Your task to perform on an android device: Do I have any events today? Image 0: 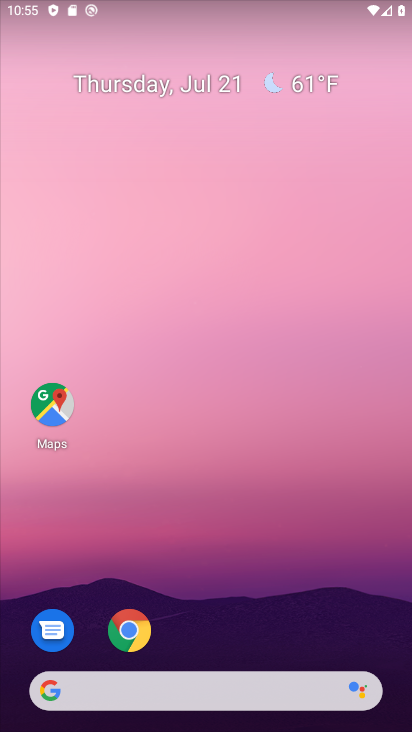
Step 0: drag from (191, 689) to (196, 193)
Your task to perform on an android device: Do I have any events today? Image 1: 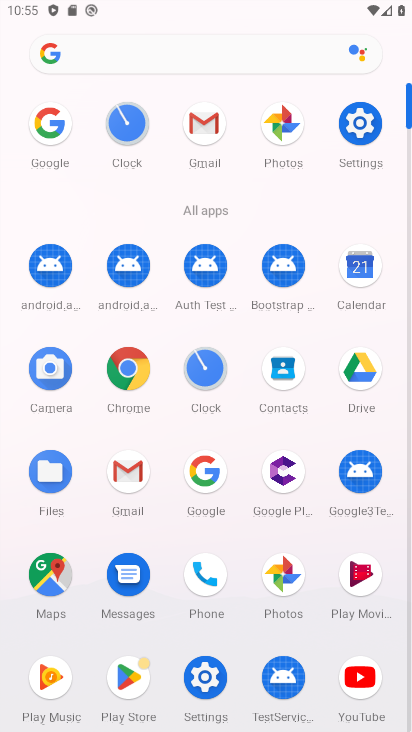
Step 1: click (353, 263)
Your task to perform on an android device: Do I have any events today? Image 2: 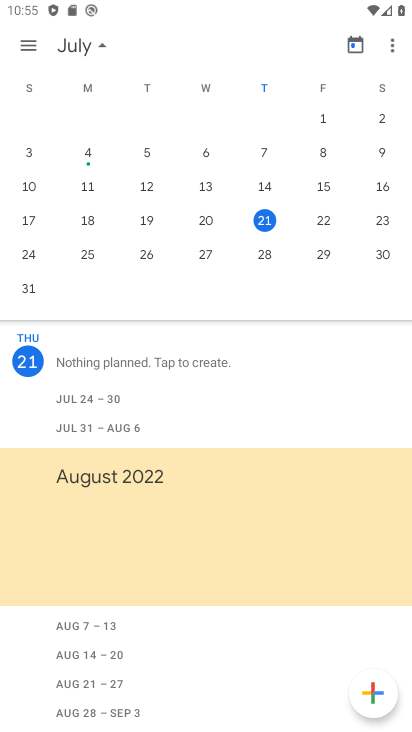
Step 2: task complete